Your task to perform on an android device: Open calendar and show me the first week of next month Image 0: 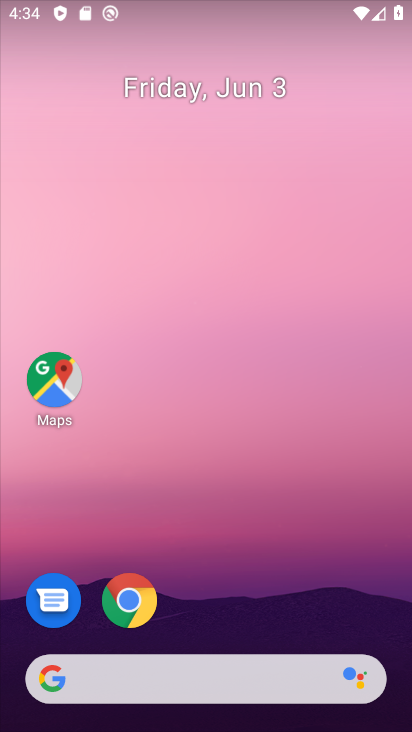
Step 0: drag from (222, 618) to (333, 15)
Your task to perform on an android device: Open calendar and show me the first week of next month Image 1: 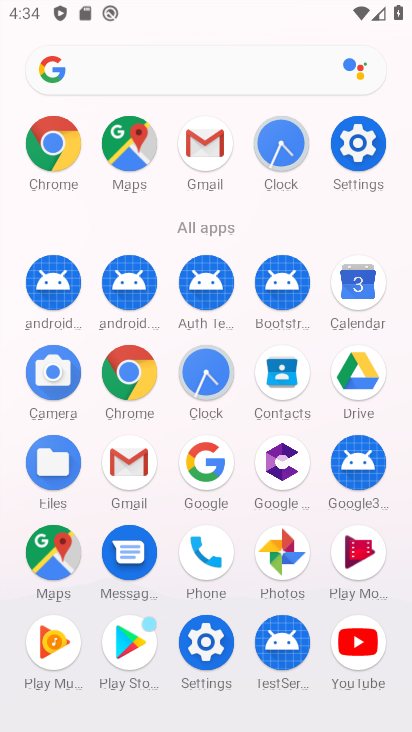
Step 1: click (362, 286)
Your task to perform on an android device: Open calendar and show me the first week of next month Image 2: 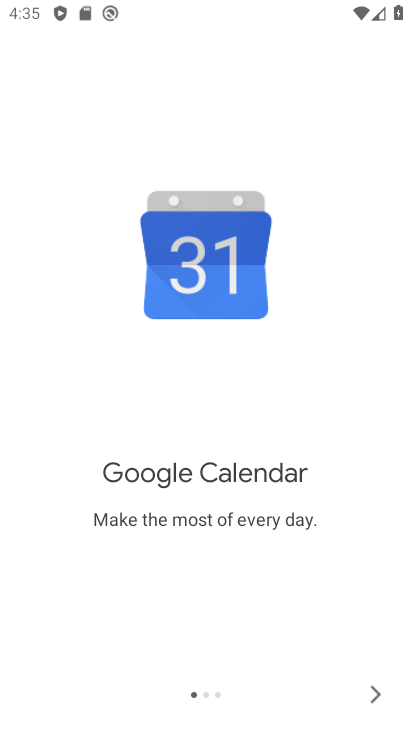
Step 2: click (377, 682)
Your task to perform on an android device: Open calendar and show me the first week of next month Image 3: 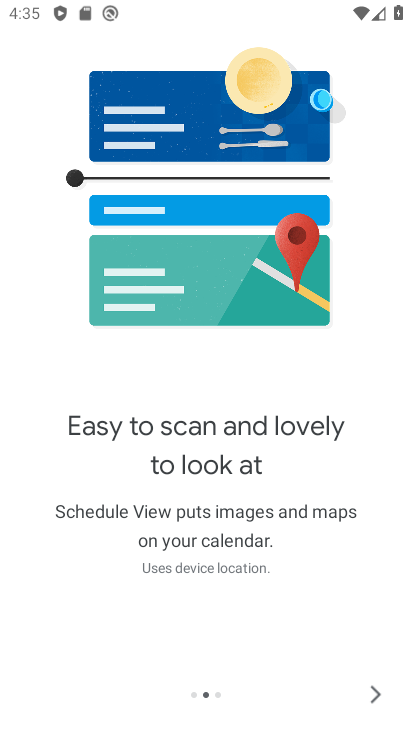
Step 3: click (372, 681)
Your task to perform on an android device: Open calendar and show me the first week of next month Image 4: 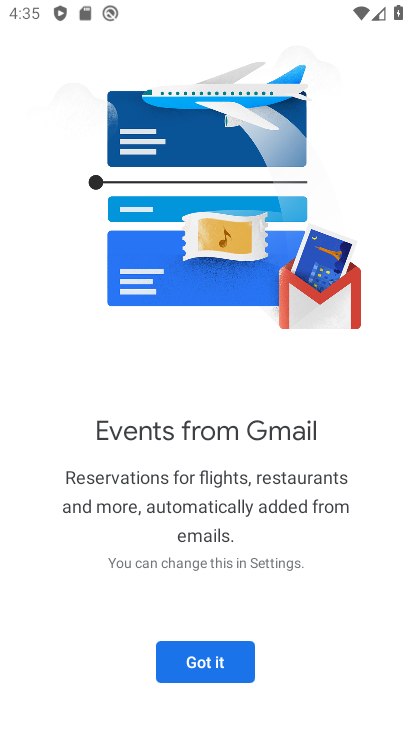
Step 4: click (199, 654)
Your task to perform on an android device: Open calendar and show me the first week of next month Image 5: 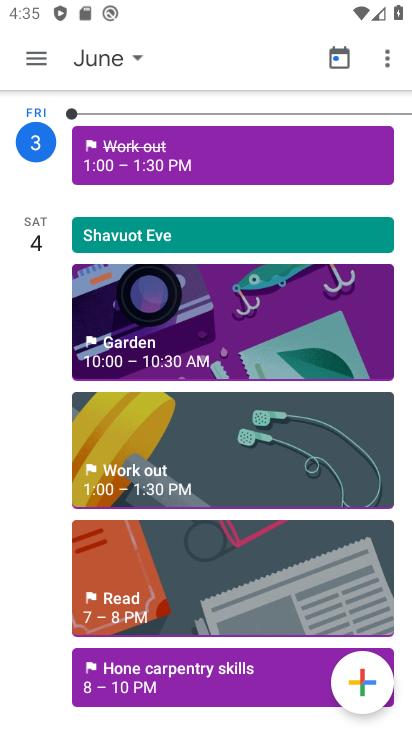
Step 5: click (37, 56)
Your task to perform on an android device: Open calendar and show me the first week of next month Image 6: 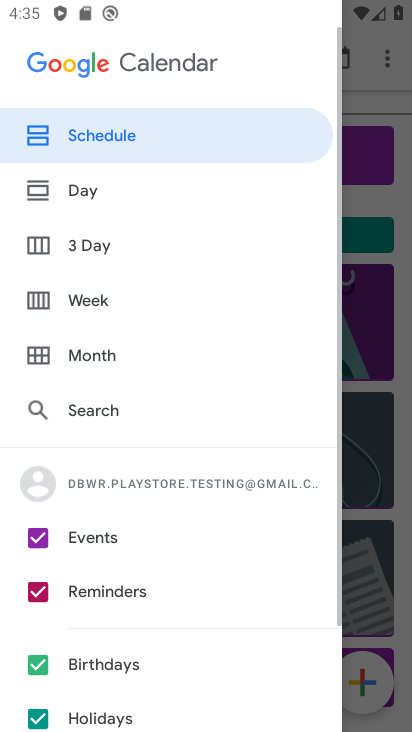
Step 6: click (94, 290)
Your task to perform on an android device: Open calendar and show me the first week of next month Image 7: 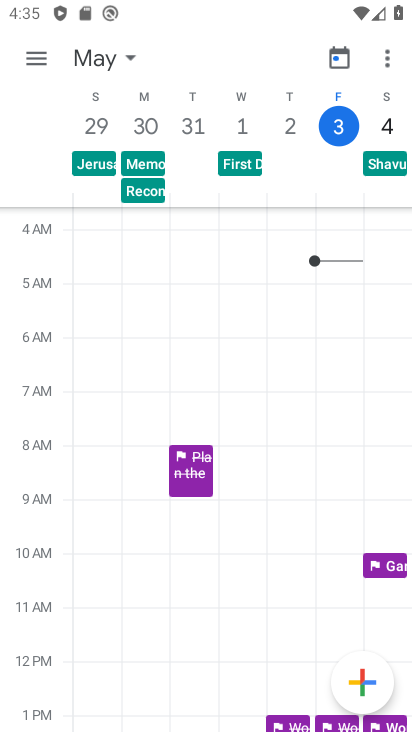
Step 7: click (118, 56)
Your task to perform on an android device: Open calendar and show me the first week of next month Image 8: 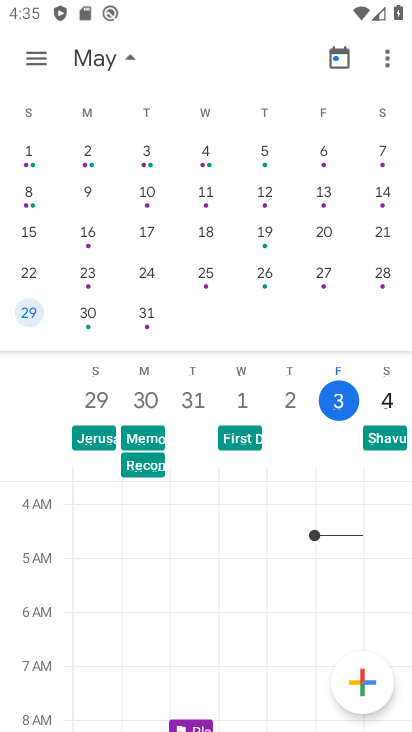
Step 8: drag from (316, 236) to (61, 209)
Your task to perform on an android device: Open calendar and show me the first week of next month Image 9: 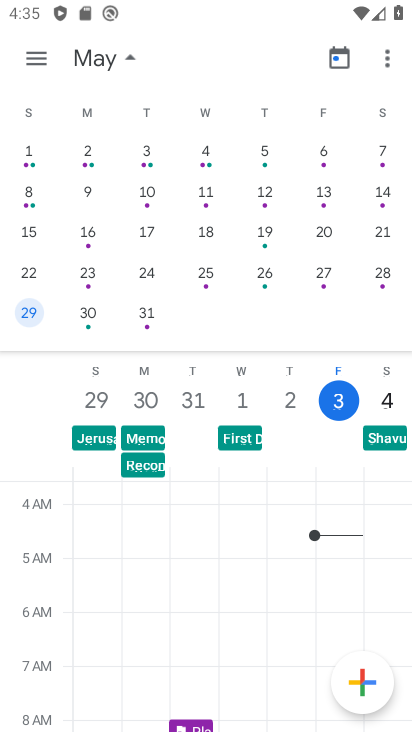
Step 9: drag from (355, 231) to (52, 152)
Your task to perform on an android device: Open calendar and show me the first week of next month Image 10: 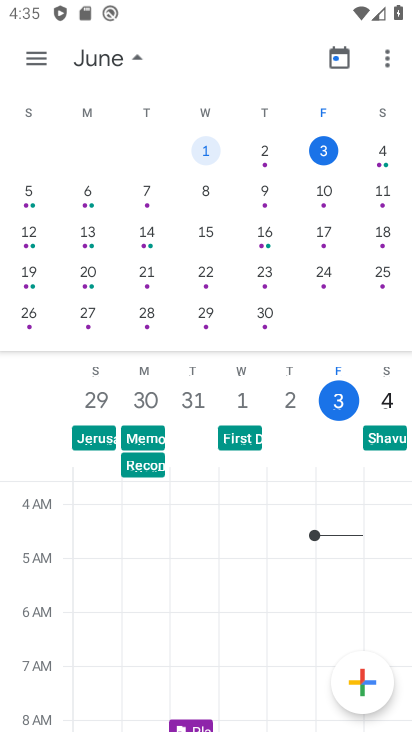
Step 10: drag from (361, 261) to (33, 186)
Your task to perform on an android device: Open calendar and show me the first week of next month Image 11: 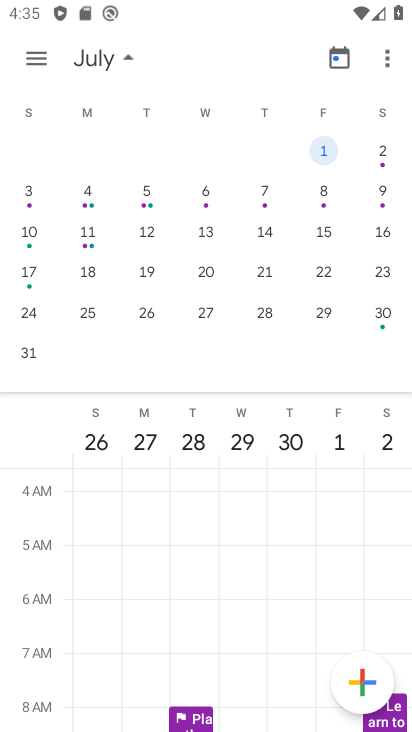
Step 11: click (25, 320)
Your task to perform on an android device: Open calendar and show me the first week of next month Image 12: 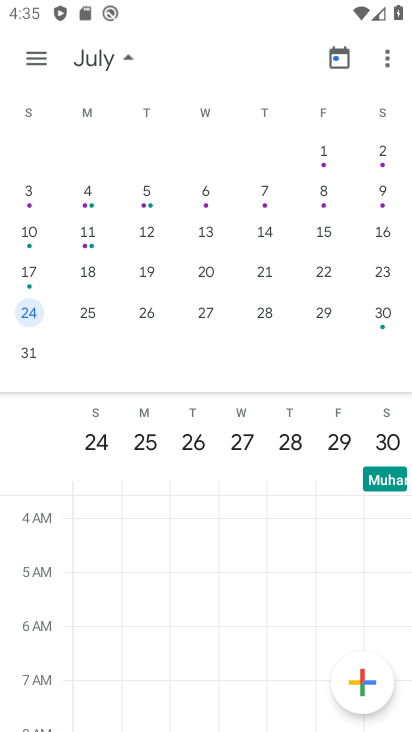
Step 12: click (33, 59)
Your task to perform on an android device: Open calendar and show me the first week of next month Image 13: 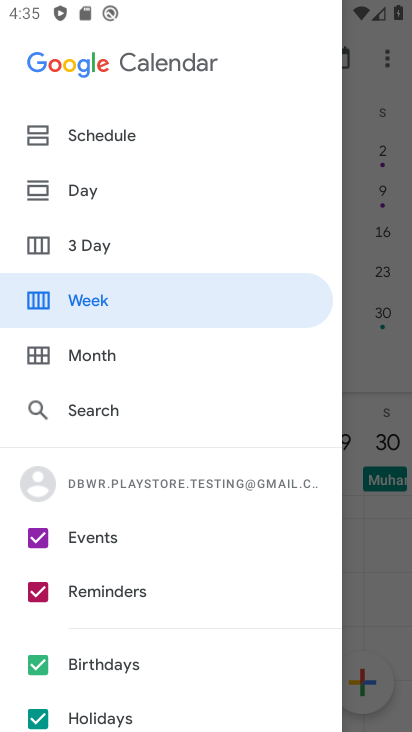
Step 13: click (99, 301)
Your task to perform on an android device: Open calendar and show me the first week of next month Image 14: 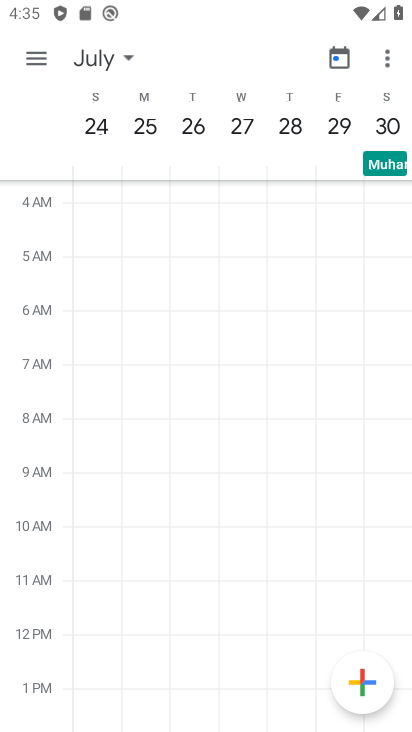
Step 14: task complete